Your task to perform on an android device: turn off data saver in the chrome app Image 0: 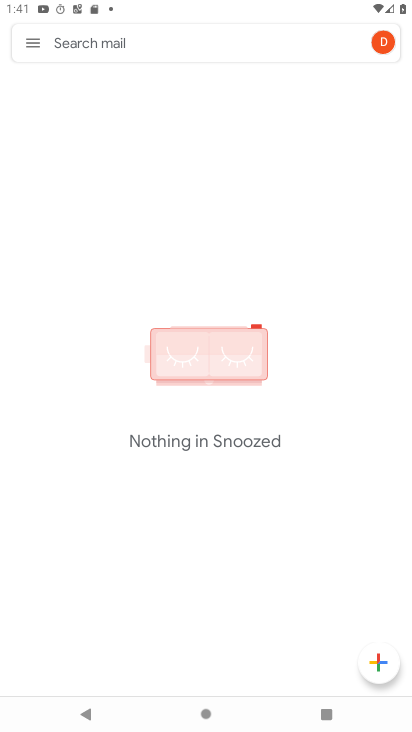
Step 0: press home button
Your task to perform on an android device: turn off data saver in the chrome app Image 1: 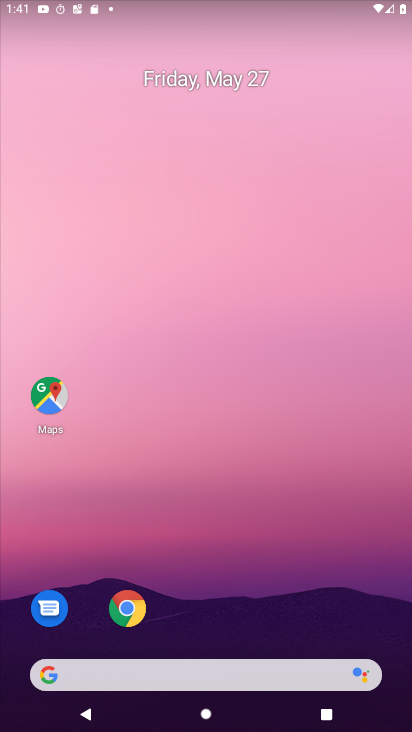
Step 1: click (129, 606)
Your task to perform on an android device: turn off data saver in the chrome app Image 2: 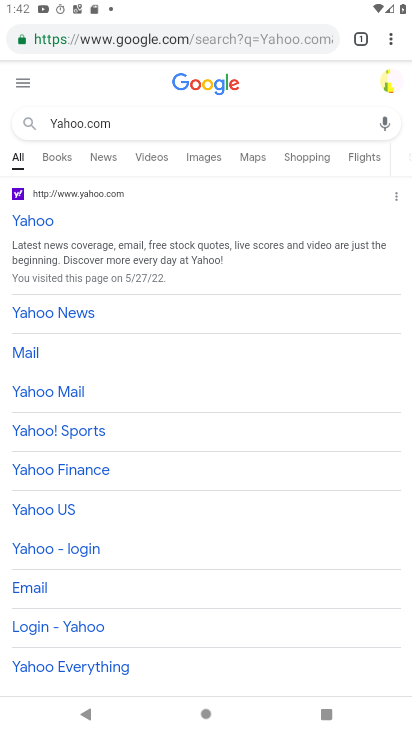
Step 2: click (388, 36)
Your task to perform on an android device: turn off data saver in the chrome app Image 3: 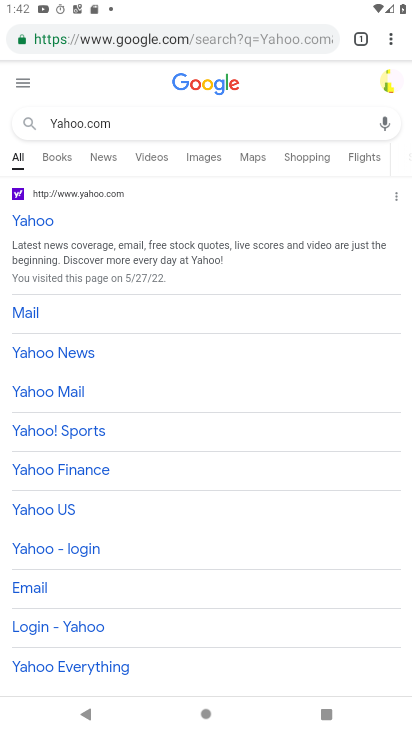
Step 3: click (391, 35)
Your task to perform on an android device: turn off data saver in the chrome app Image 4: 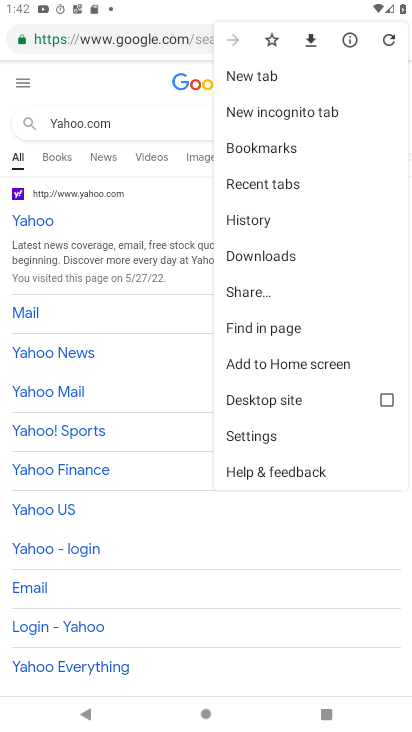
Step 4: click (254, 438)
Your task to perform on an android device: turn off data saver in the chrome app Image 5: 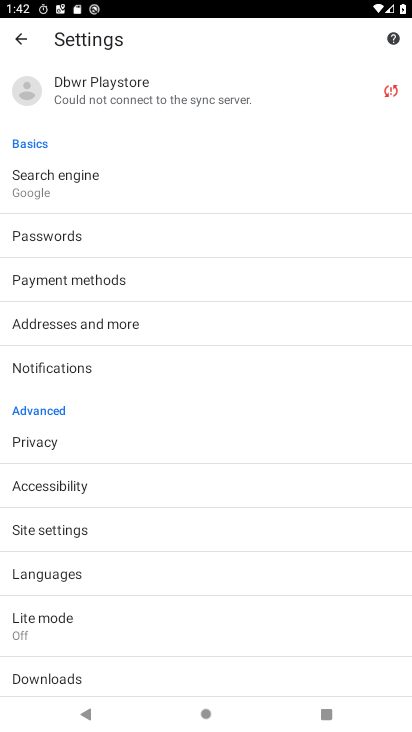
Step 5: click (70, 618)
Your task to perform on an android device: turn off data saver in the chrome app Image 6: 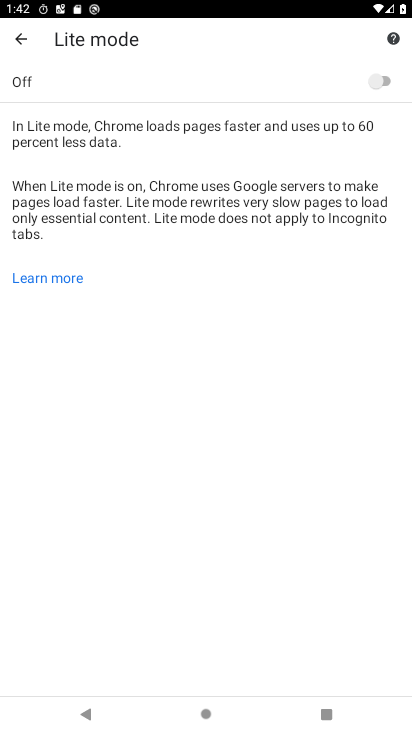
Step 6: click (389, 79)
Your task to perform on an android device: turn off data saver in the chrome app Image 7: 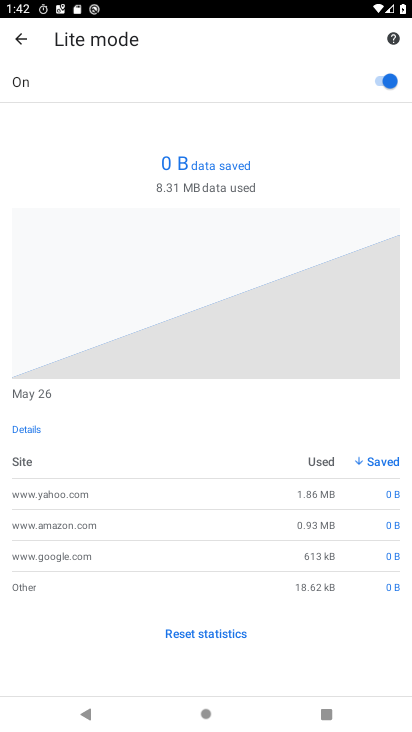
Step 7: click (384, 85)
Your task to perform on an android device: turn off data saver in the chrome app Image 8: 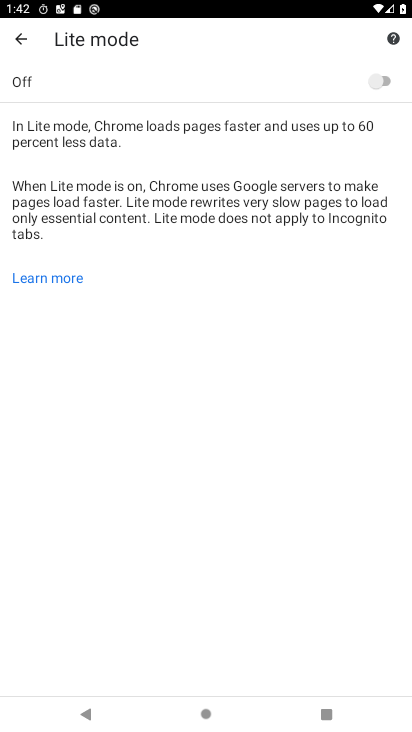
Step 8: task complete